Your task to perform on an android device: set default search engine in the chrome app Image 0: 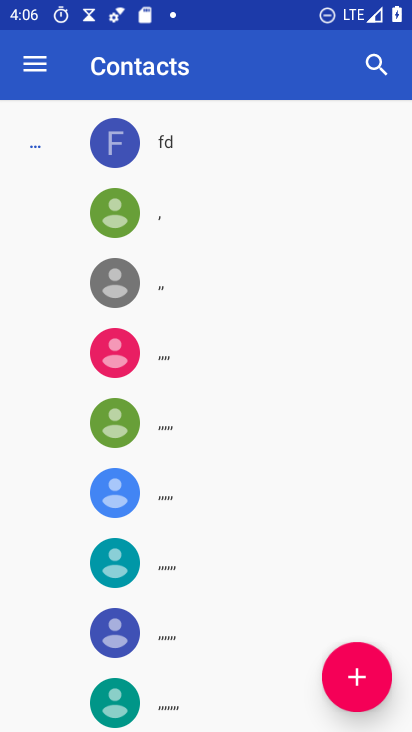
Step 0: press home button
Your task to perform on an android device: set default search engine in the chrome app Image 1: 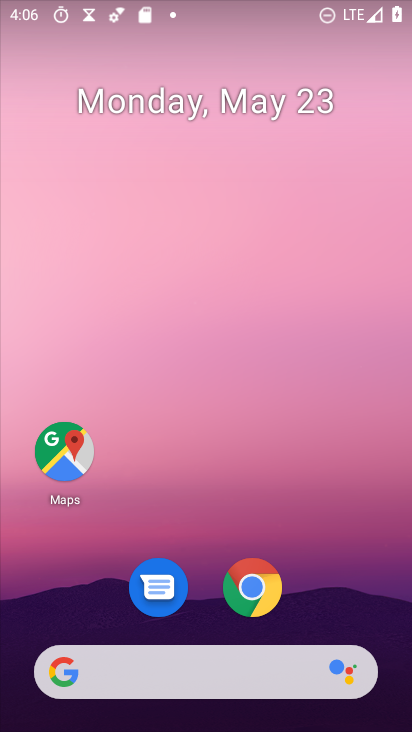
Step 1: click (259, 578)
Your task to perform on an android device: set default search engine in the chrome app Image 2: 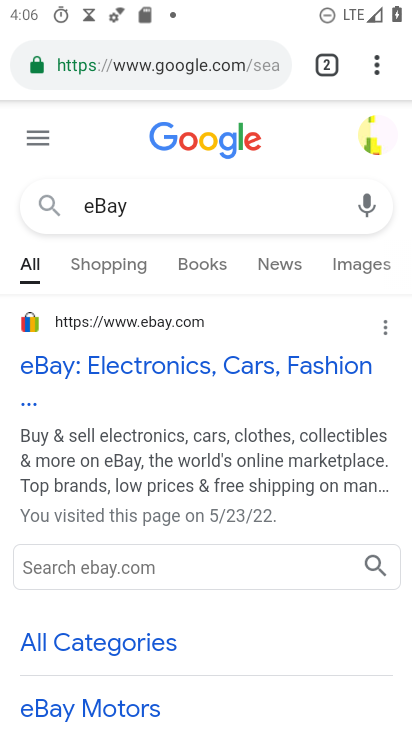
Step 2: click (390, 60)
Your task to perform on an android device: set default search engine in the chrome app Image 3: 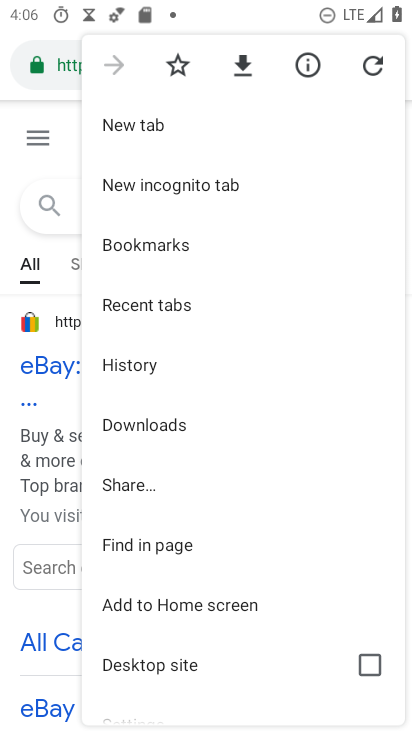
Step 3: drag from (151, 644) to (193, 423)
Your task to perform on an android device: set default search engine in the chrome app Image 4: 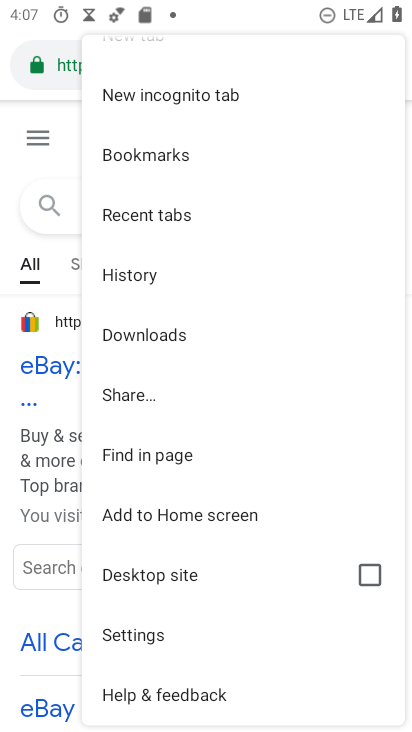
Step 4: click (138, 630)
Your task to perform on an android device: set default search engine in the chrome app Image 5: 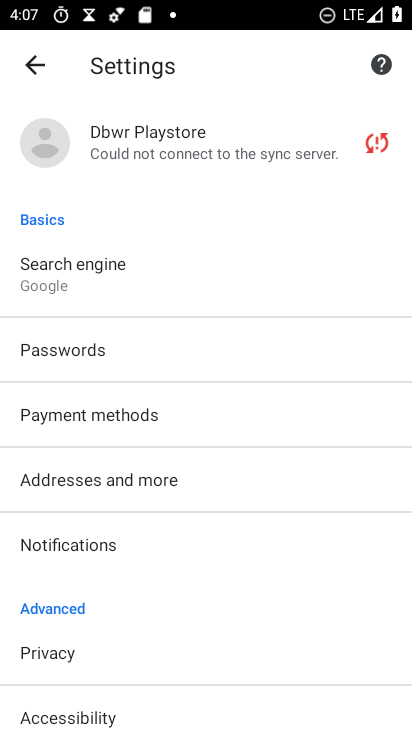
Step 5: click (107, 281)
Your task to perform on an android device: set default search engine in the chrome app Image 6: 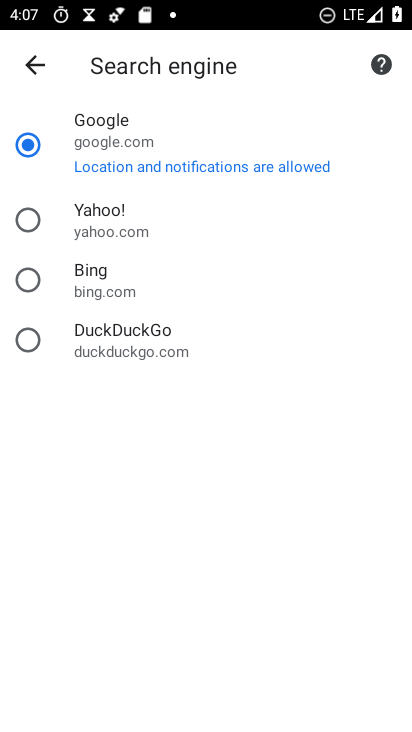
Step 6: click (128, 165)
Your task to perform on an android device: set default search engine in the chrome app Image 7: 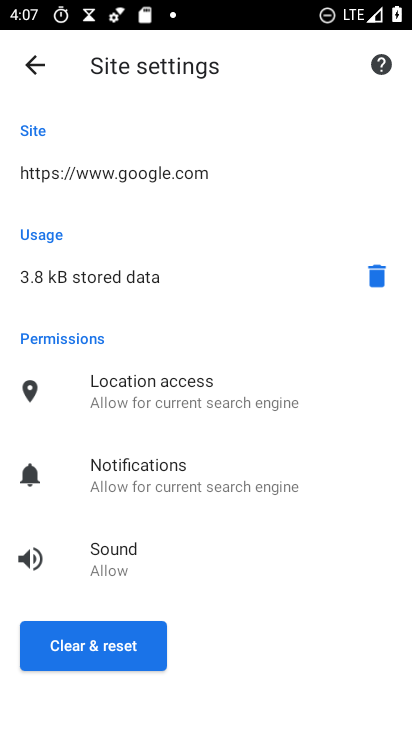
Step 7: click (121, 640)
Your task to perform on an android device: set default search engine in the chrome app Image 8: 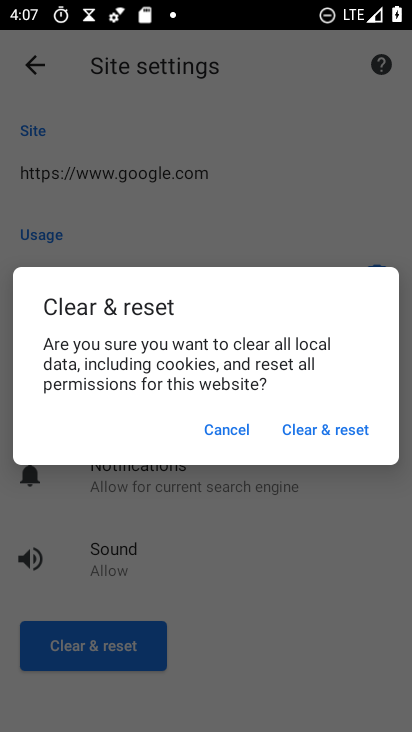
Step 8: click (334, 418)
Your task to perform on an android device: set default search engine in the chrome app Image 9: 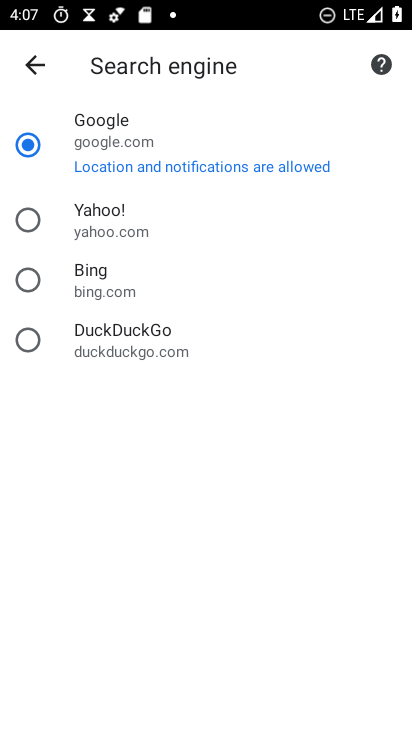
Step 9: task complete